Your task to perform on an android device: turn on the 24-hour format for clock Image 0: 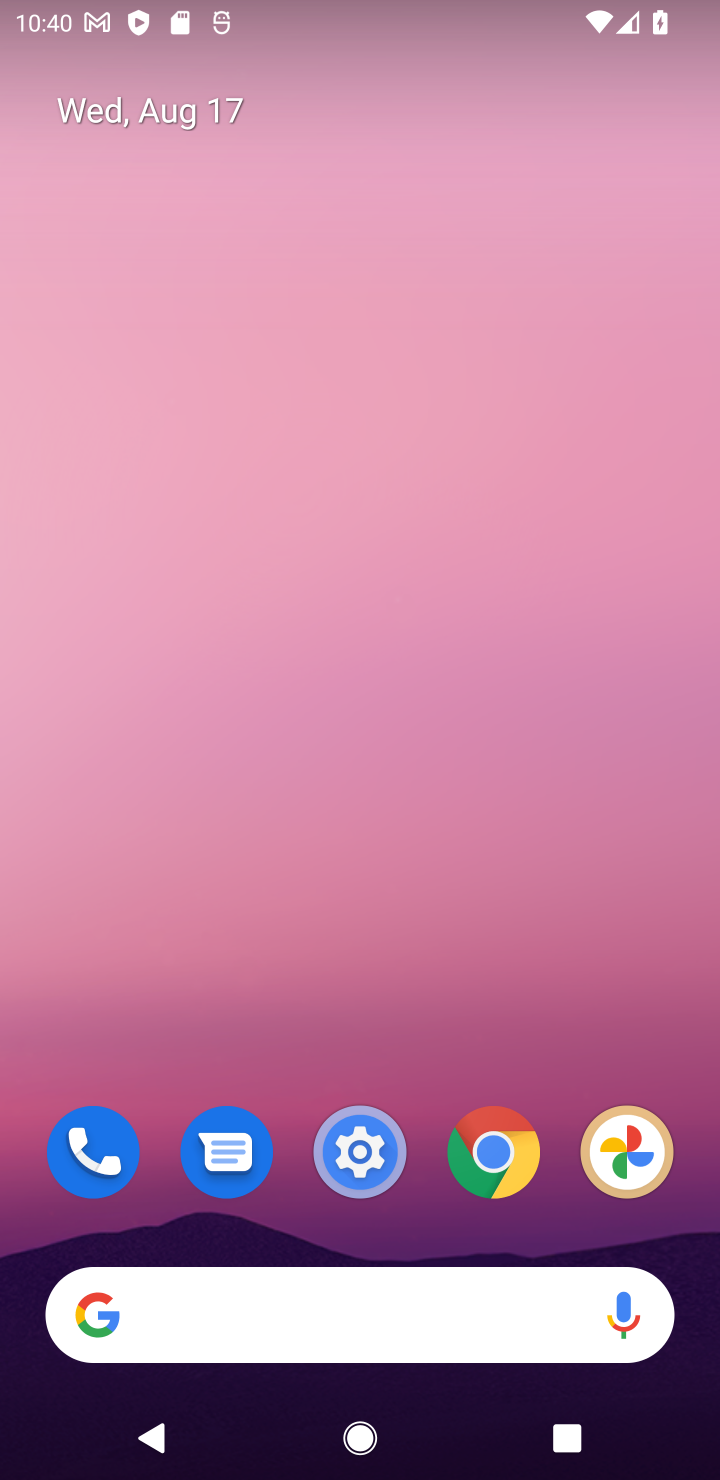
Step 0: drag from (599, 1232) to (317, 61)
Your task to perform on an android device: turn on the 24-hour format for clock Image 1: 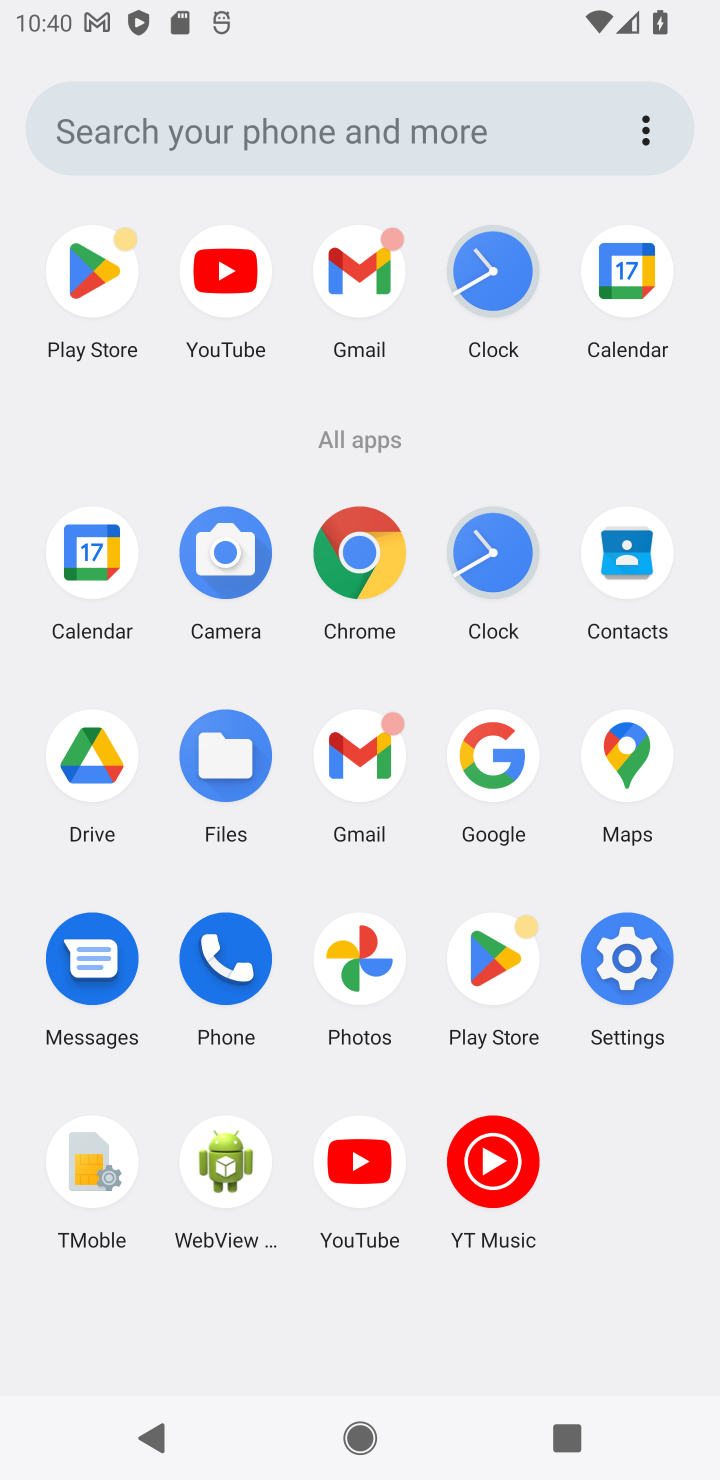
Step 1: click (491, 553)
Your task to perform on an android device: turn on the 24-hour format for clock Image 2: 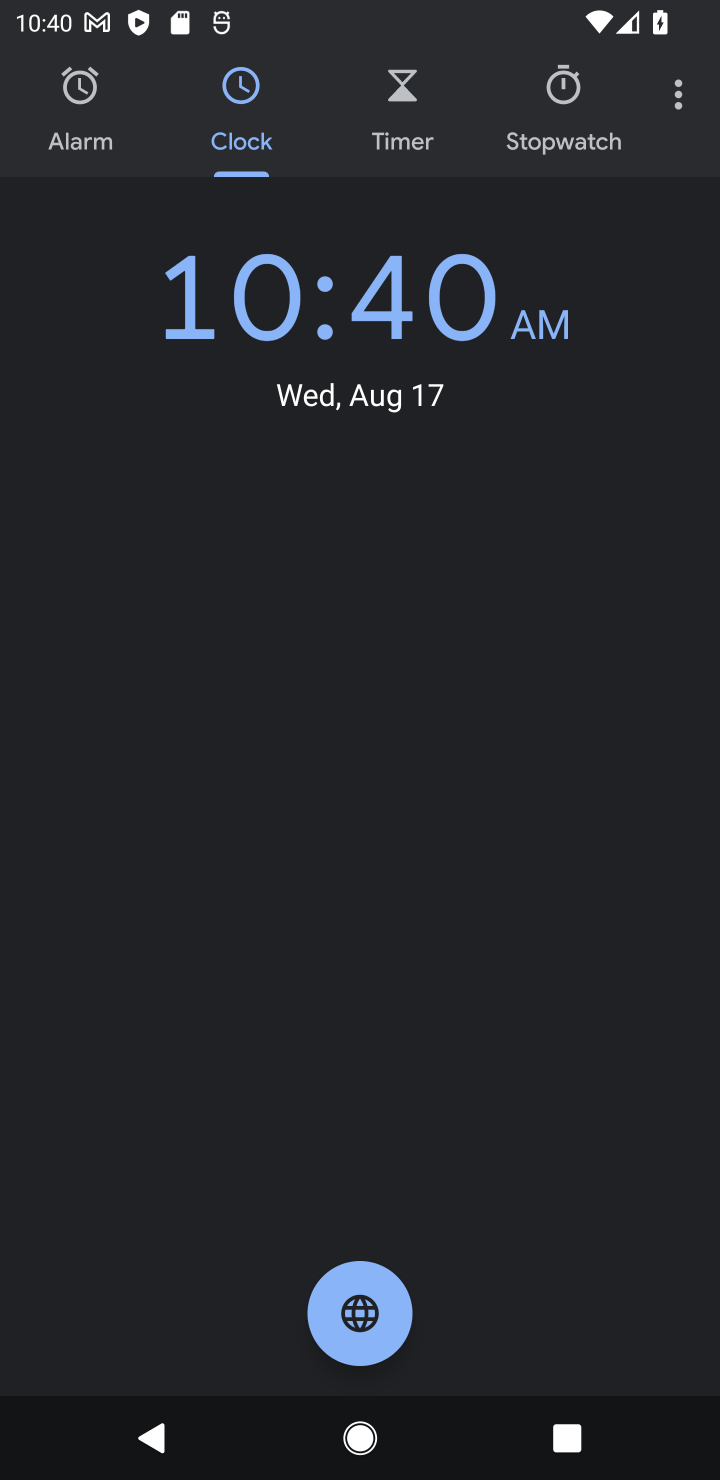
Step 2: click (665, 89)
Your task to perform on an android device: turn on the 24-hour format for clock Image 3: 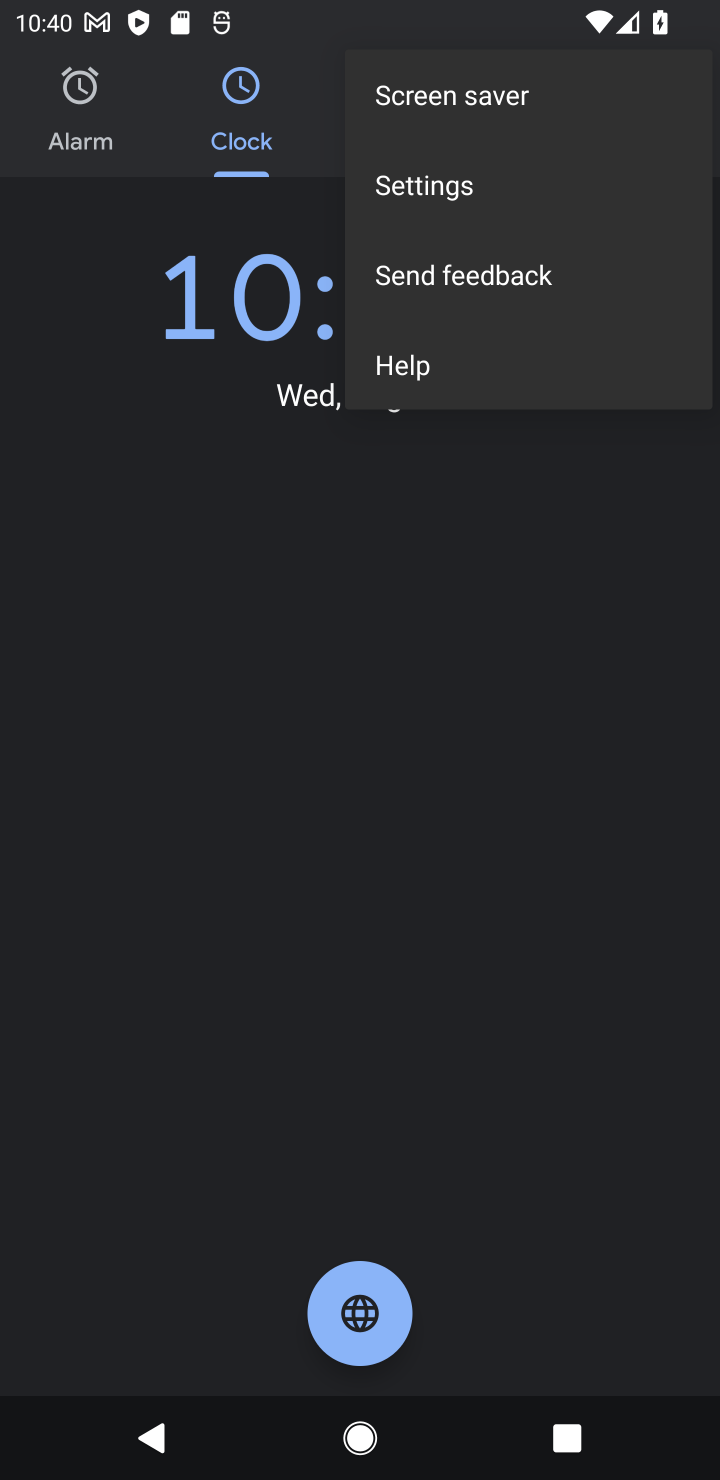
Step 3: click (412, 184)
Your task to perform on an android device: turn on the 24-hour format for clock Image 4: 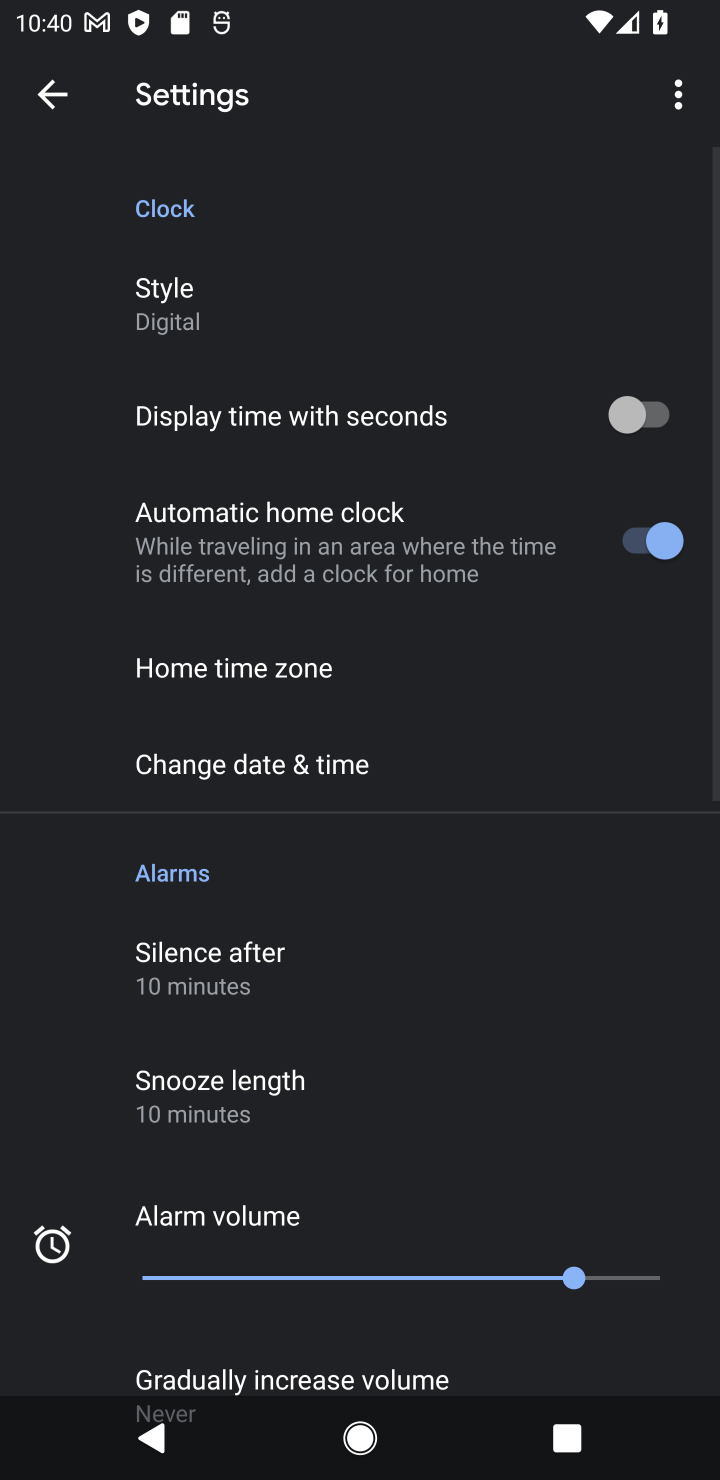
Step 4: click (266, 766)
Your task to perform on an android device: turn on the 24-hour format for clock Image 5: 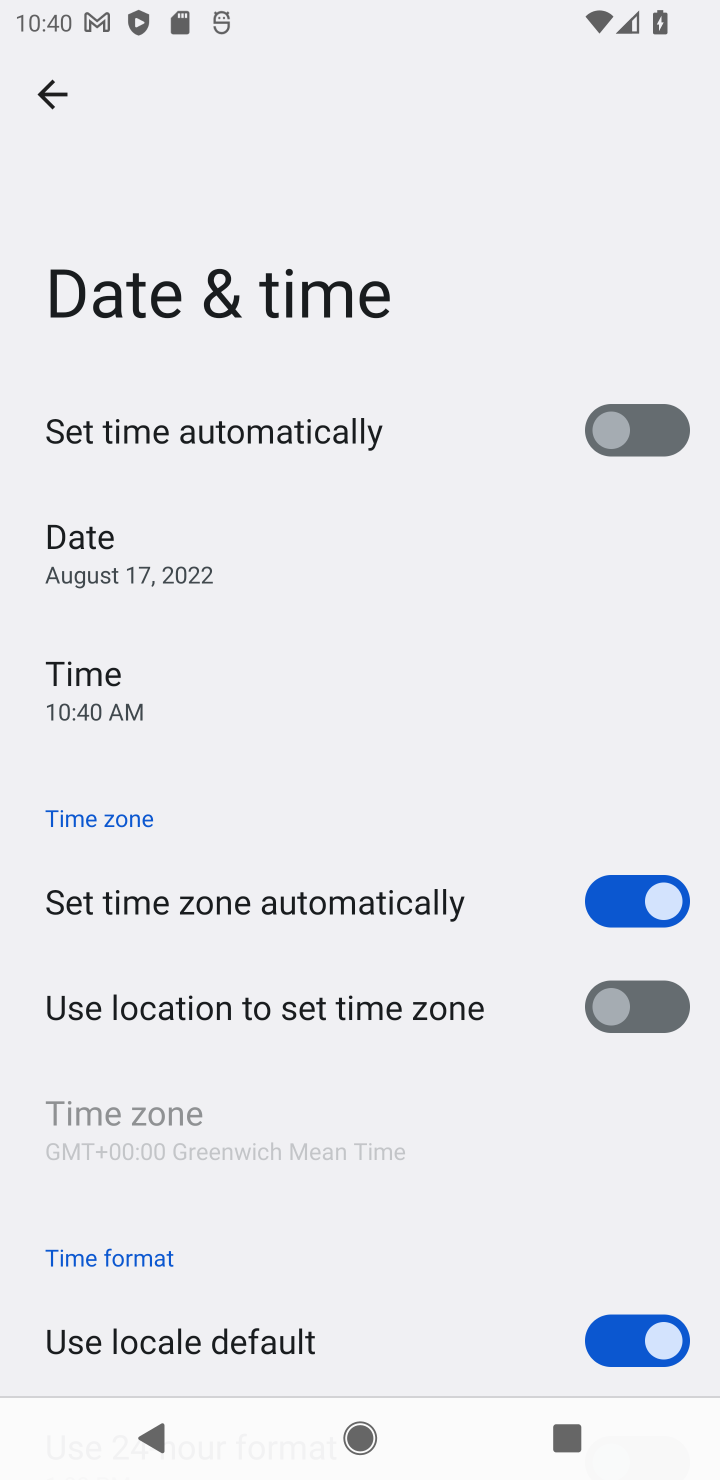
Step 5: task complete